Your task to perform on an android device: clear history in the chrome app Image 0: 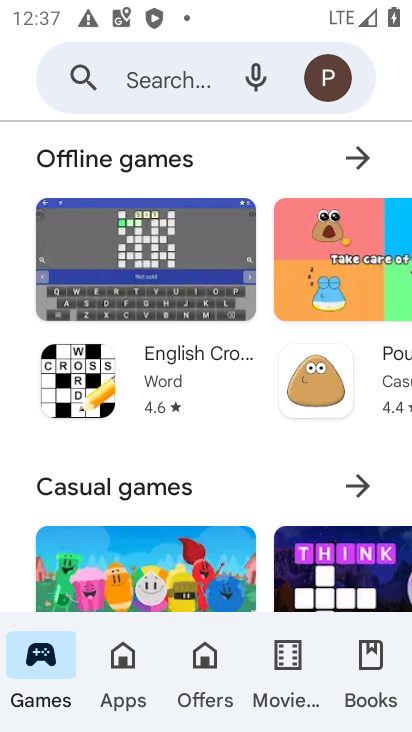
Step 0: press home button
Your task to perform on an android device: clear history in the chrome app Image 1: 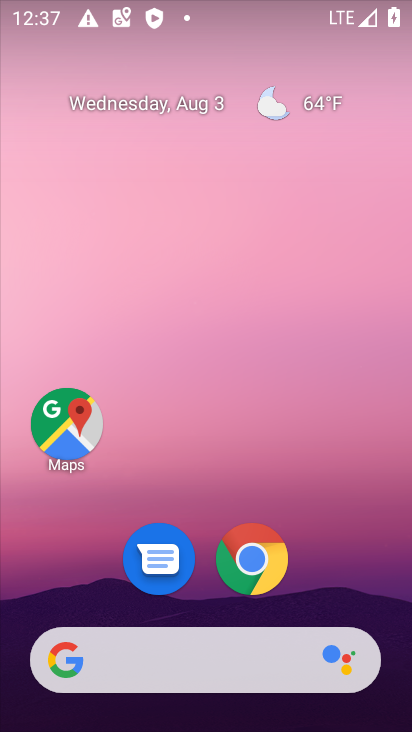
Step 1: click (259, 576)
Your task to perform on an android device: clear history in the chrome app Image 2: 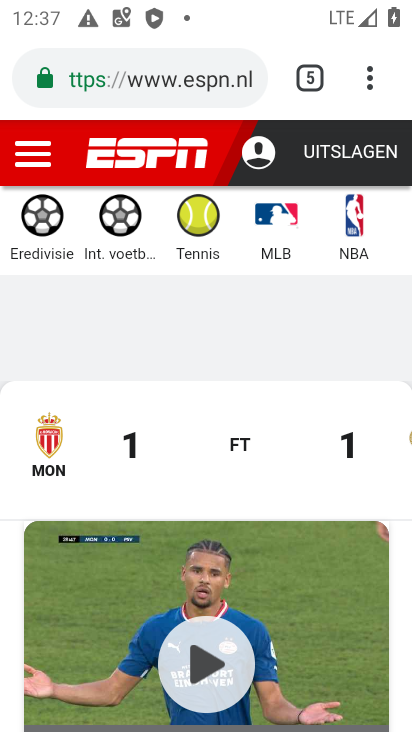
Step 2: click (369, 85)
Your task to perform on an android device: clear history in the chrome app Image 3: 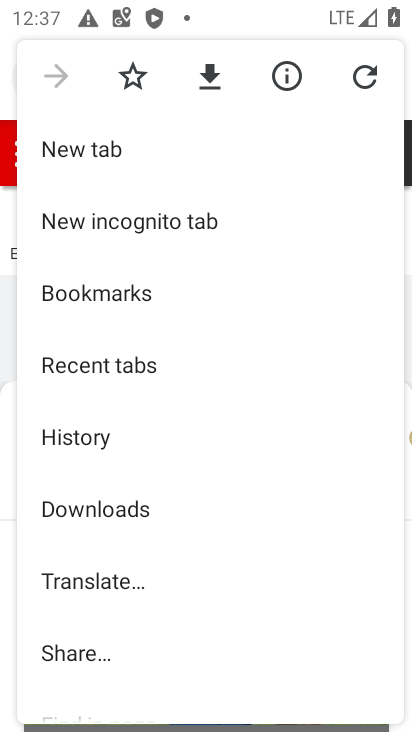
Step 3: click (79, 441)
Your task to perform on an android device: clear history in the chrome app Image 4: 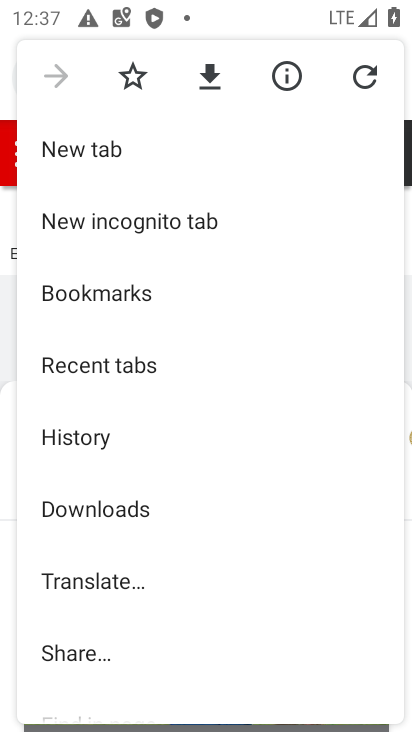
Step 4: click (79, 441)
Your task to perform on an android device: clear history in the chrome app Image 5: 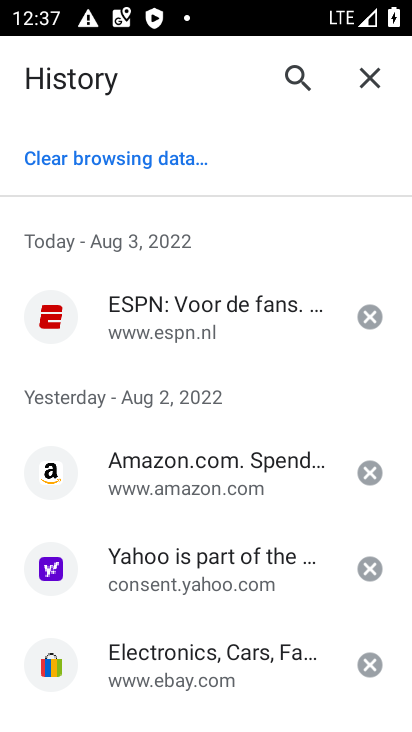
Step 5: click (144, 158)
Your task to perform on an android device: clear history in the chrome app Image 6: 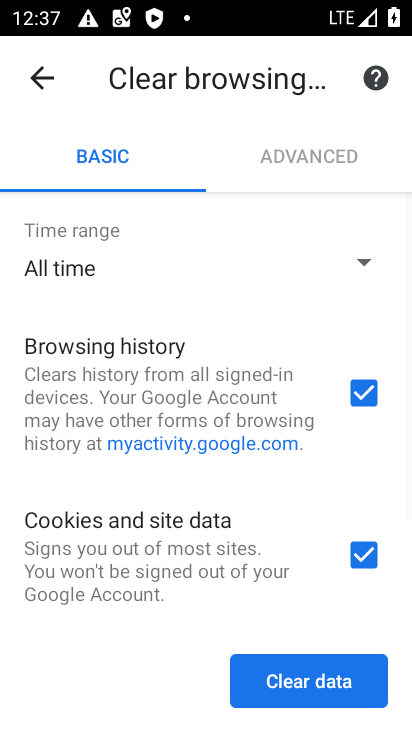
Step 6: click (359, 547)
Your task to perform on an android device: clear history in the chrome app Image 7: 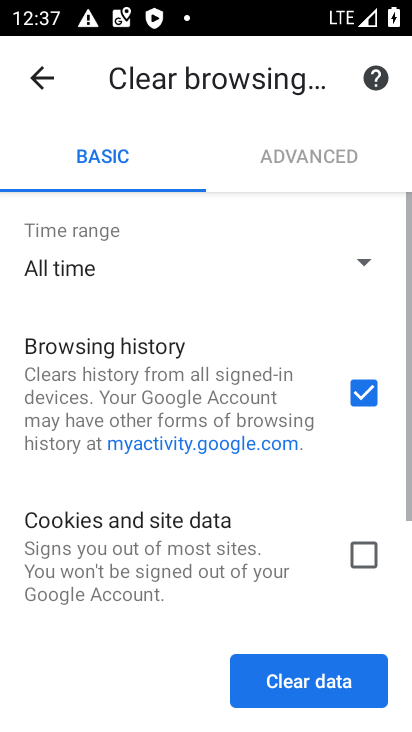
Step 7: drag from (319, 543) to (322, 315)
Your task to perform on an android device: clear history in the chrome app Image 8: 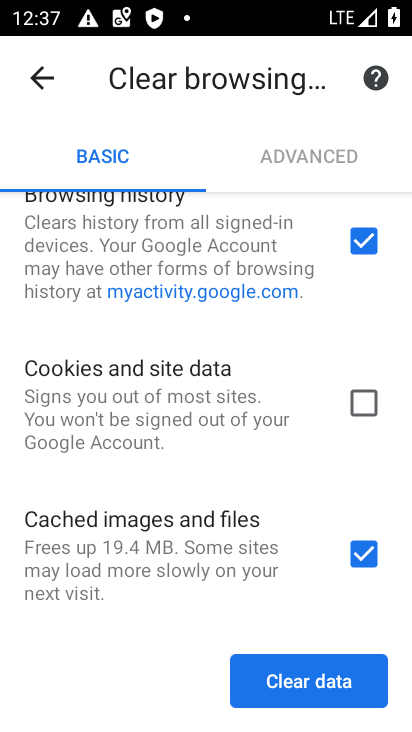
Step 8: click (354, 549)
Your task to perform on an android device: clear history in the chrome app Image 9: 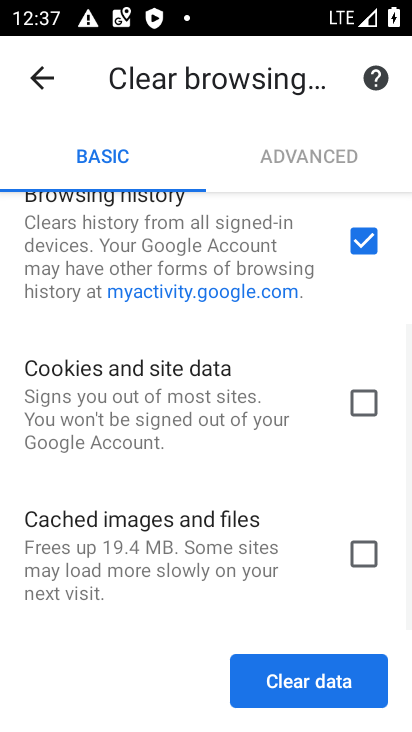
Step 9: click (310, 671)
Your task to perform on an android device: clear history in the chrome app Image 10: 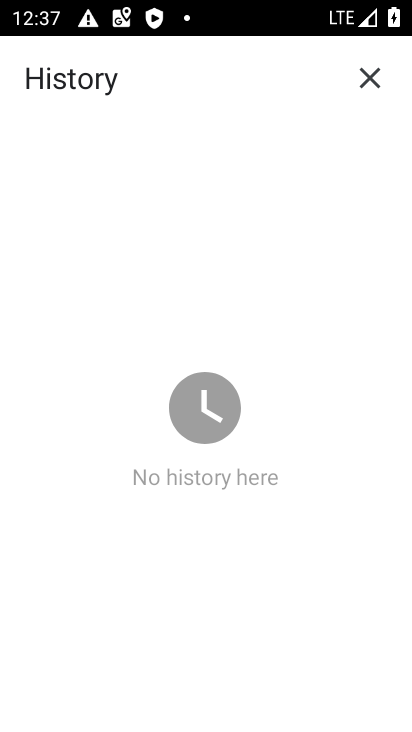
Step 10: task complete